Your task to perform on an android device: What's the weather going to be this weekend? Image 0: 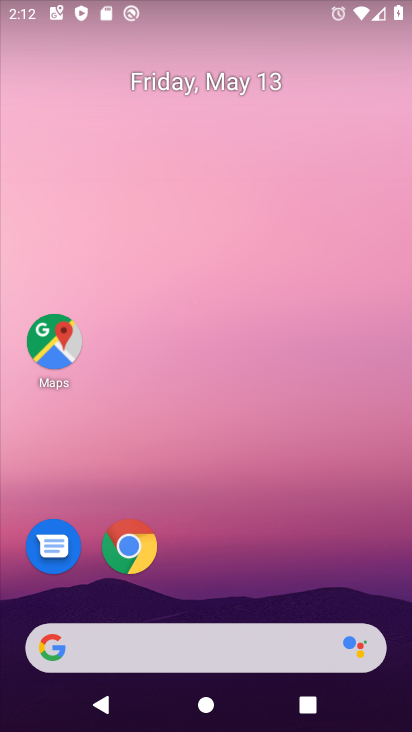
Step 0: drag from (271, 585) to (274, 532)
Your task to perform on an android device: What's the weather going to be this weekend? Image 1: 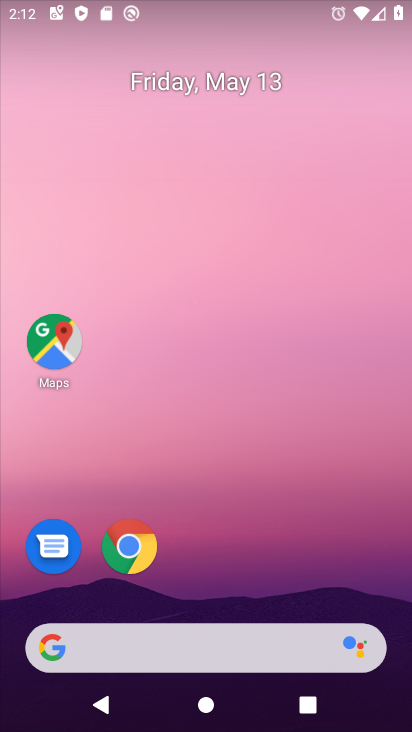
Step 1: click (137, 544)
Your task to perform on an android device: What's the weather going to be this weekend? Image 2: 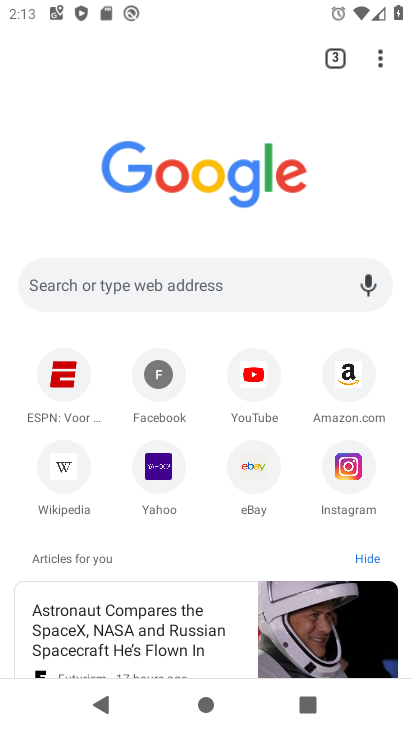
Step 2: click (236, 277)
Your task to perform on an android device: What's the weather going to be this weekend? Image 3: 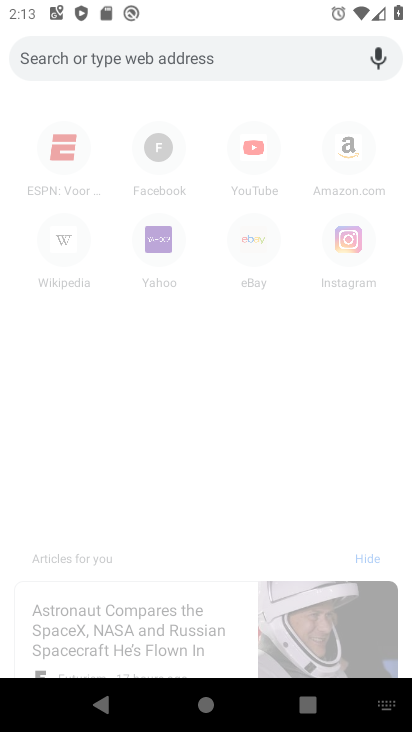
Step 3: type "weather"
Your task to perform on an android device: What's the weather going to be this weekend? Image 4: 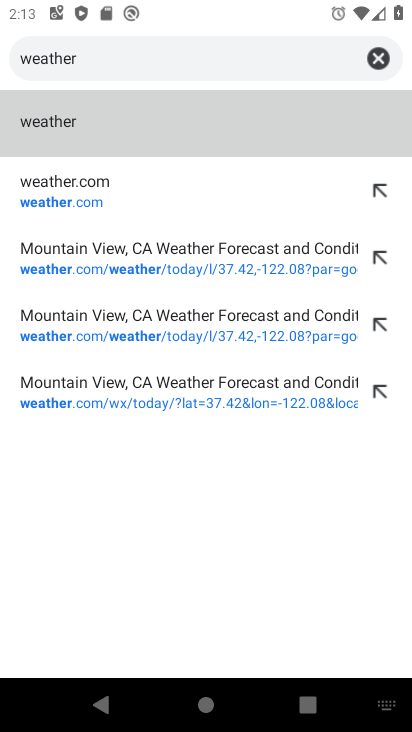
Step 4: click (83, 194)
Your task to perform on an android device: What's the weather going to be this weekend? Image 5: 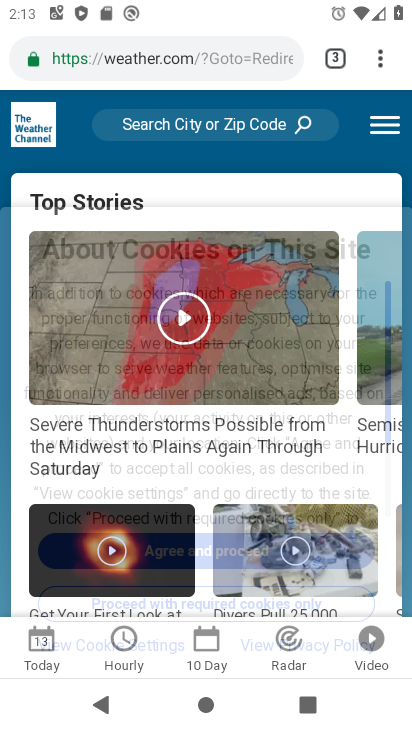
Step 5: click (222, 652)
Your task to perform on an android device: What's the weather going to be this weekend? Image 6: 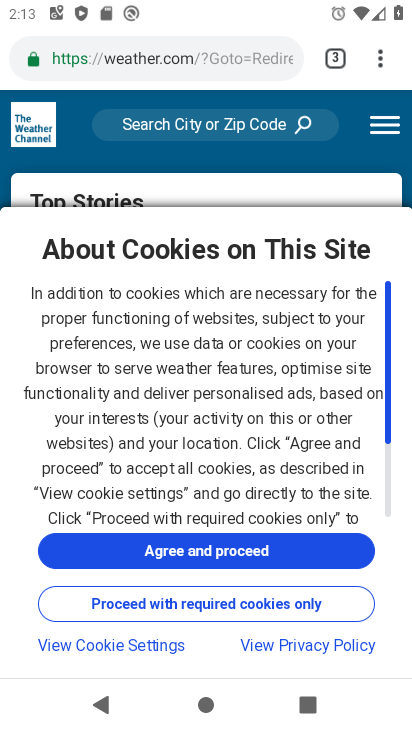
Step 6: press back button
Your task to perform on an android device: What's the weather going to be this weekend? Image 7: 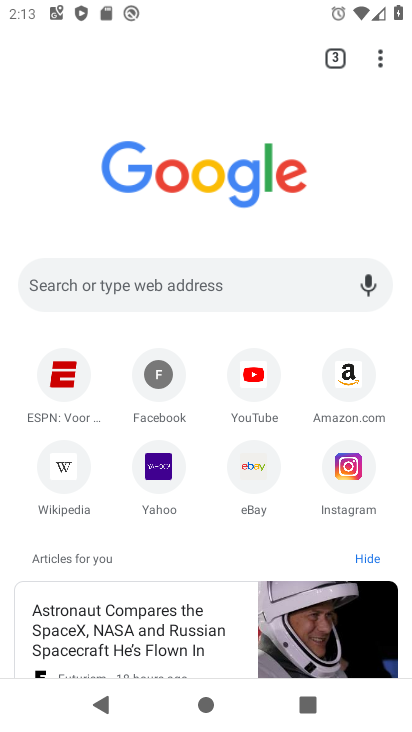
Step 7: click (244, 274)
Your task to perform on an android device: What's the weather going to be this weekend? Image 8: 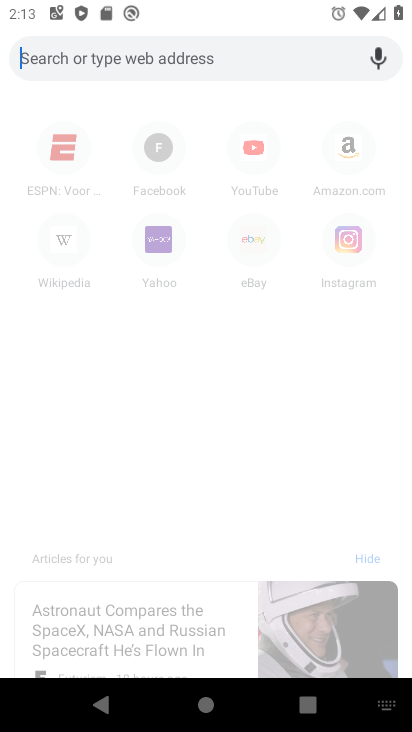
Step 8: type "weather"
Your task to perform on an android device: What's the weather going to be this weekend? Image 9: 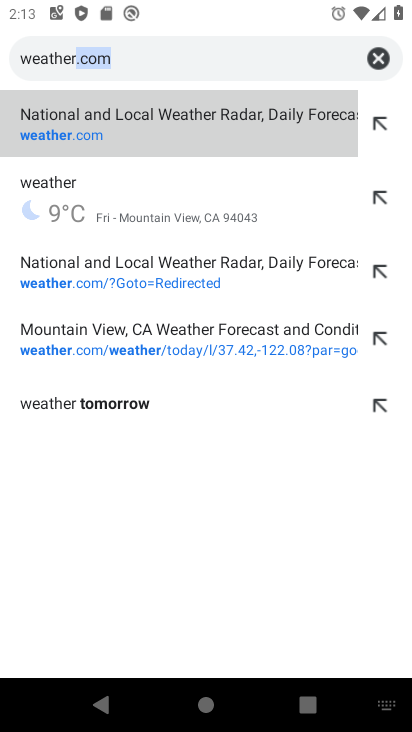
Step 9: click (96, 136)
Your task to perform on an android device: What's the weather going to be this weekend? Image 10: 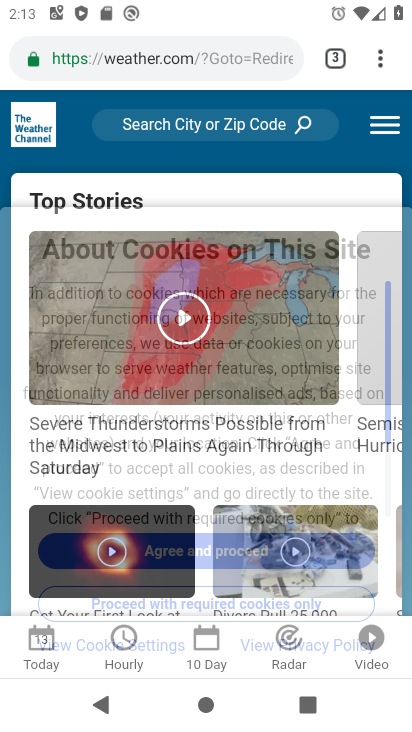
Step 10: click (211, 640)
Your task to perform on an android device: What's the weather going to be this weekend? Image 11: 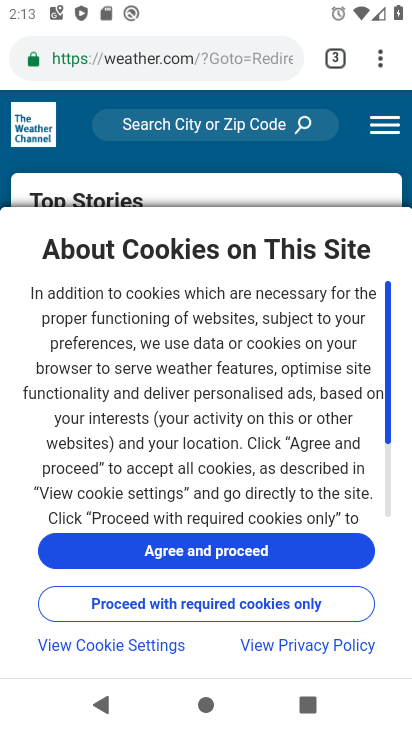
Step 11: click (230, 537)
Your task to perform on an android device: What's the weather going to be this weekend? Image 12: 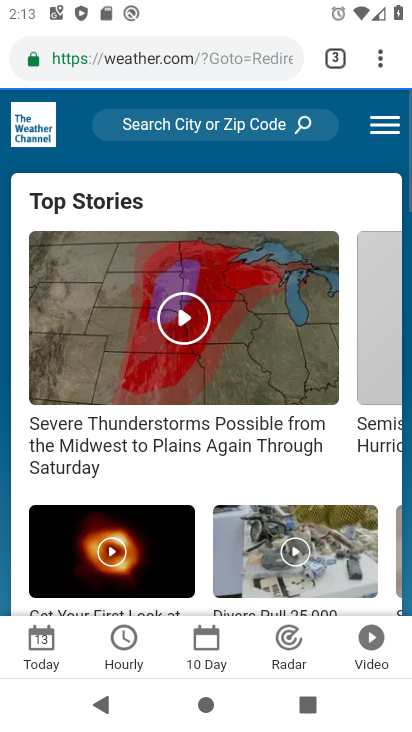
Step 12: click (201, 657)
Your task to perform on an android device: What's the weather going to be this weekend? Image 13: 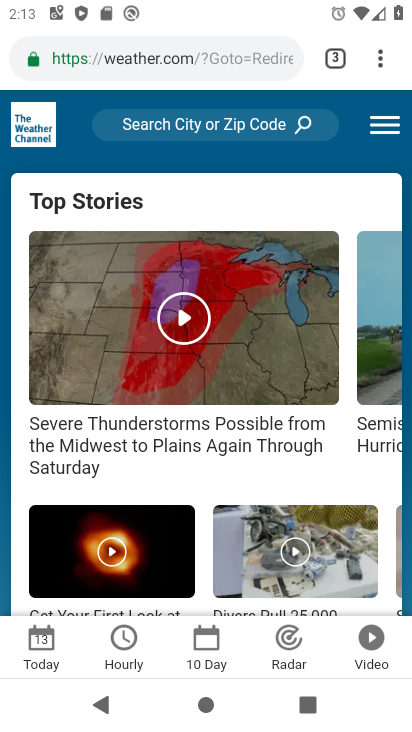
Step 13: click (223, 647)
Your task to perform on an android device: What's the weather going to be this weekend? Image 14: 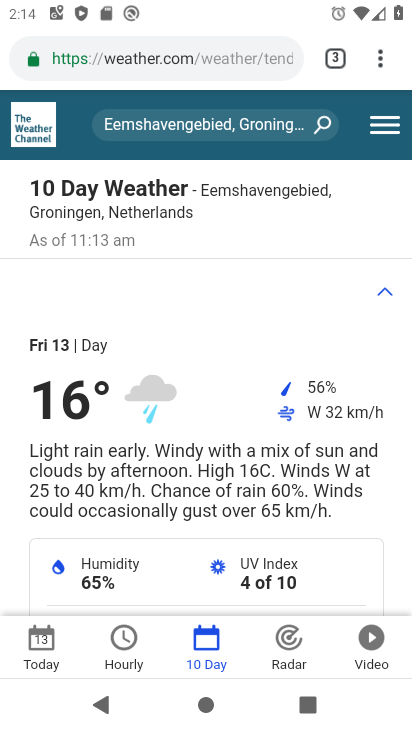
Step 14: task complete